Your task to perform on an android device: delete a single message in the gmail app Image 0: 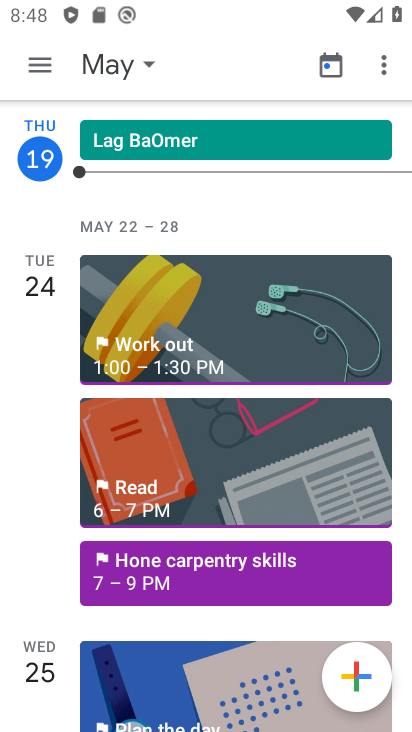
Step 0: press home button
Your task to perform on an android device: delete a single message in the gmail app Image 1: 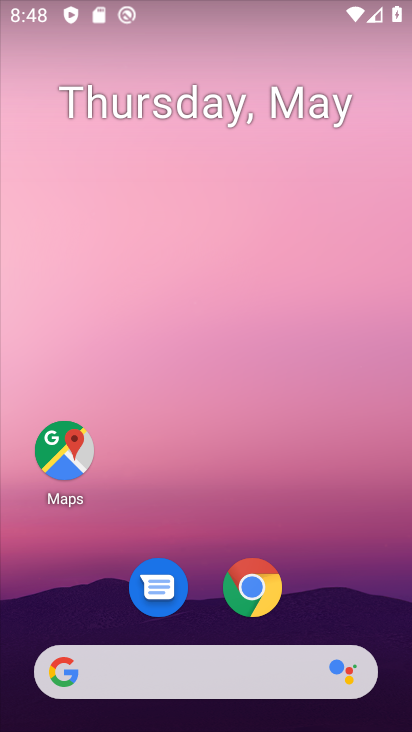
Step 1: drag from (393, 549) to (362, 138)
Your task to perform on an android device: delete a single message in the gmail app Image 2: 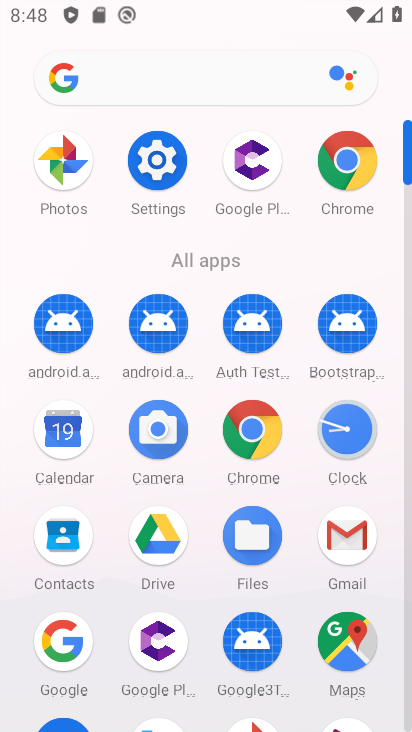
Step 2: click (371, 550)
Your task to perform on an android device: delete a single message in the gmail app Image 3: 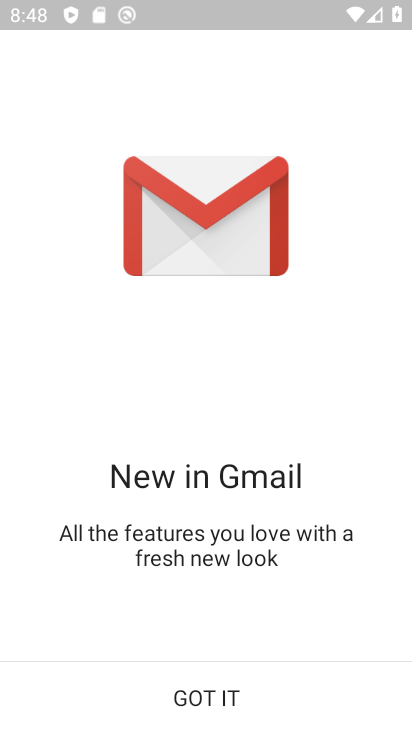
Step 3: click (232, 695)
Your task to perform on an android device: delete a single message in the gmail app Image 4: 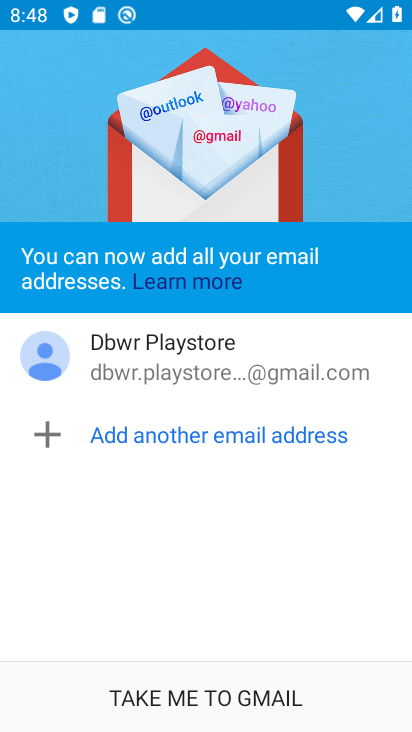
Step 4: click (267, 700)
Your task to perform on an android device: delete a single message in the gmail app Image 5: 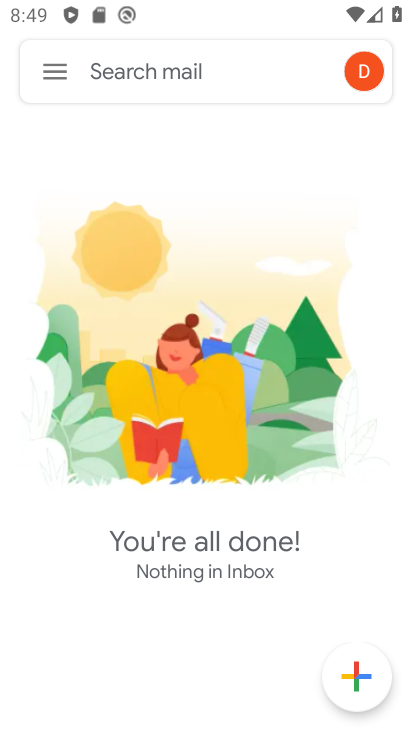
Step 5: task complete